Your task to perform on an android device: Turn off the flashlight Image 0: 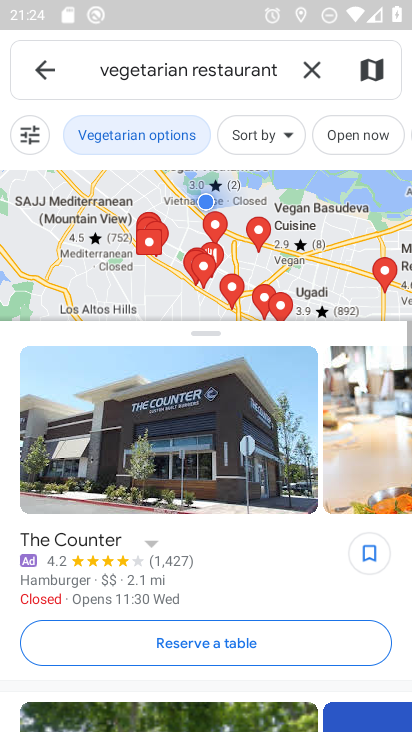
Step 0: press home button
Your task to perform on an android device: Turn off the flashlight Image 1: 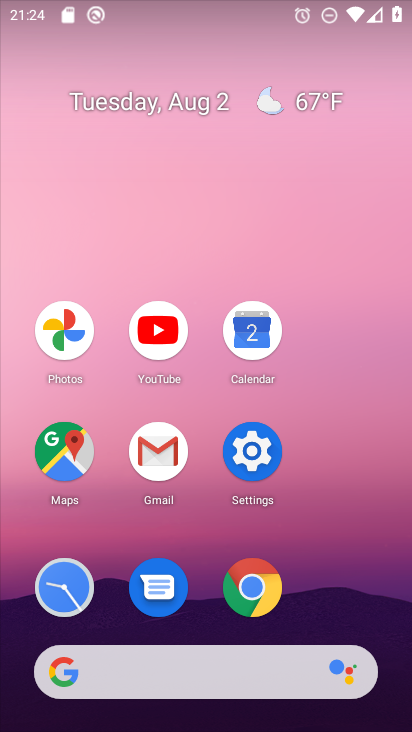
Step 1: click (252, 449)
Your task to perform on an android device: Turn off the flashlight Image 2: 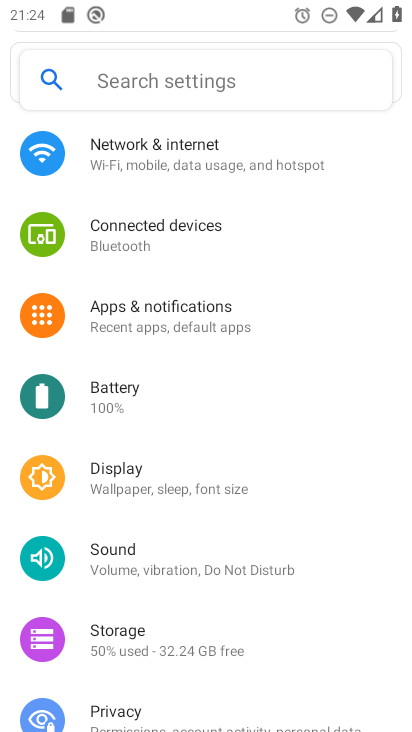
Step 2: click (117, 460)
Your task to perform on an android device: Turn off the flashlight Image 3: 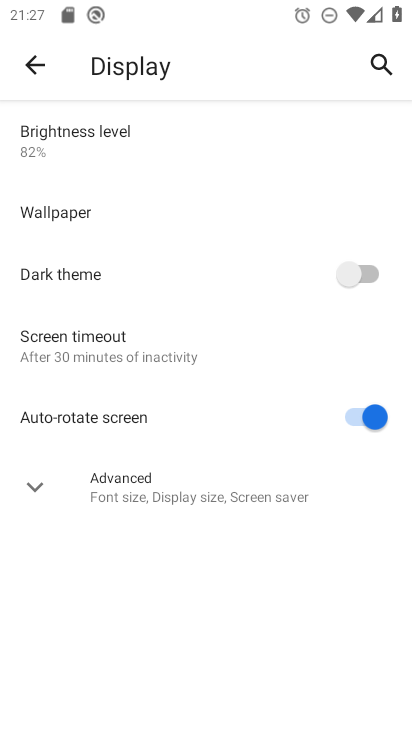
Step 3: task complete